Your task to perform on an android device: clear all cookies in the chrome app Image 0: 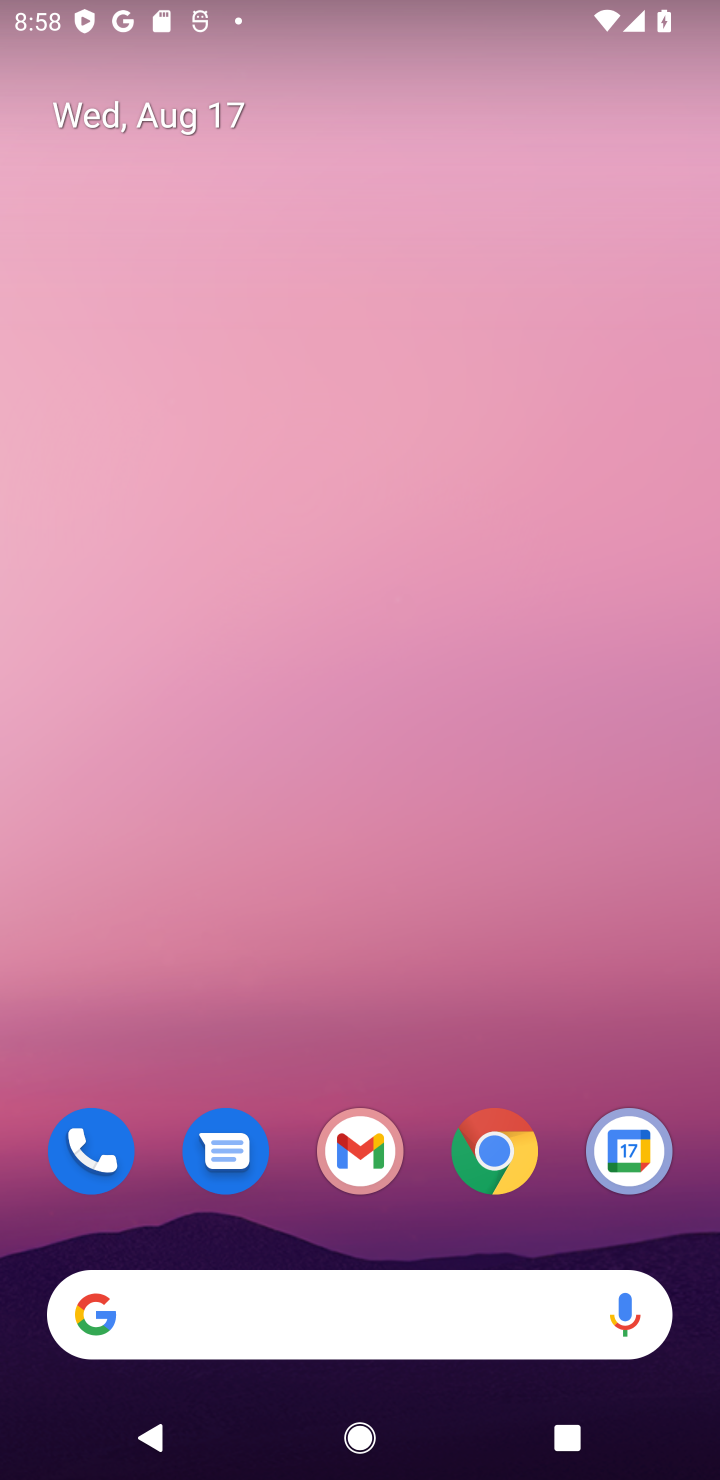
Step 0: click (498, 1152)
Your task to perform on an android device: clear all cookies in the chrome app Image 1: 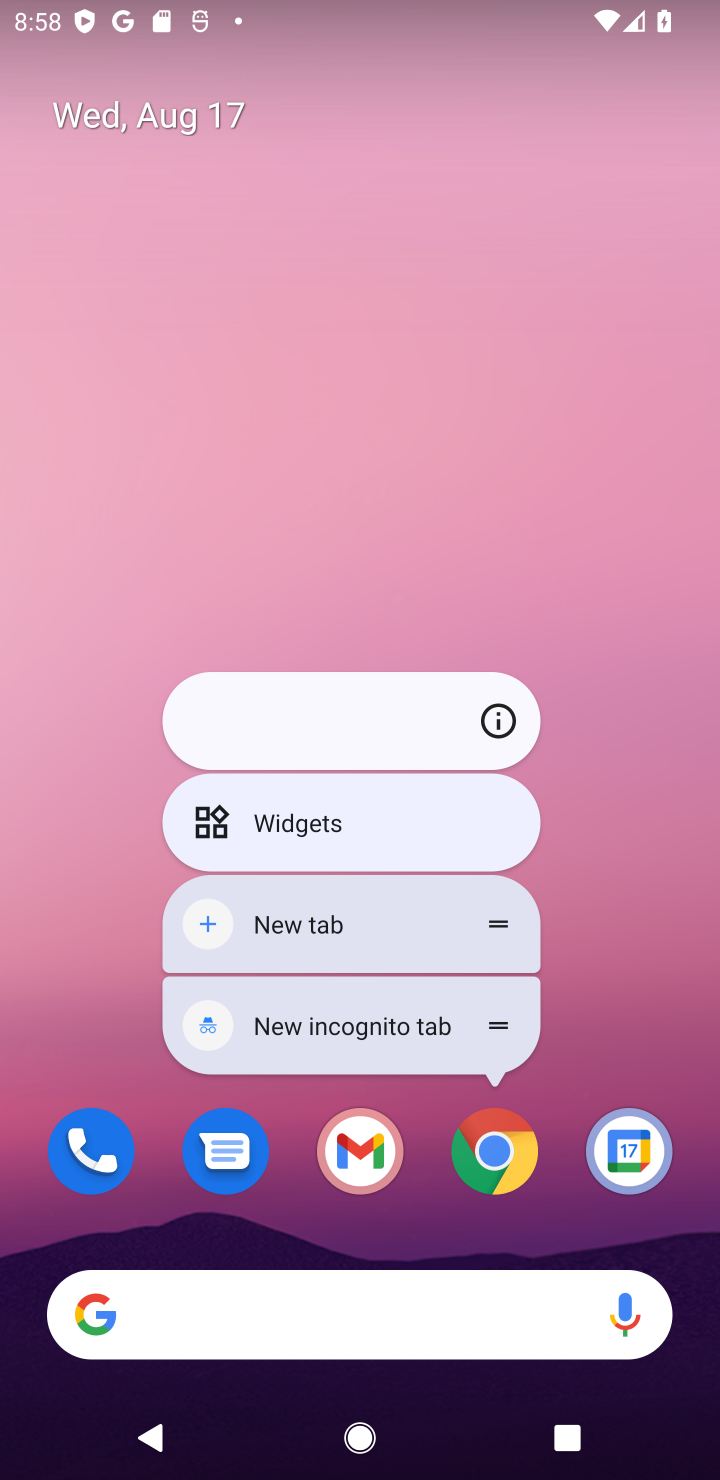
Step 1: click (493, 1161)
Your task to perform on an android device: clear all cookies in the chrome app Image 2: 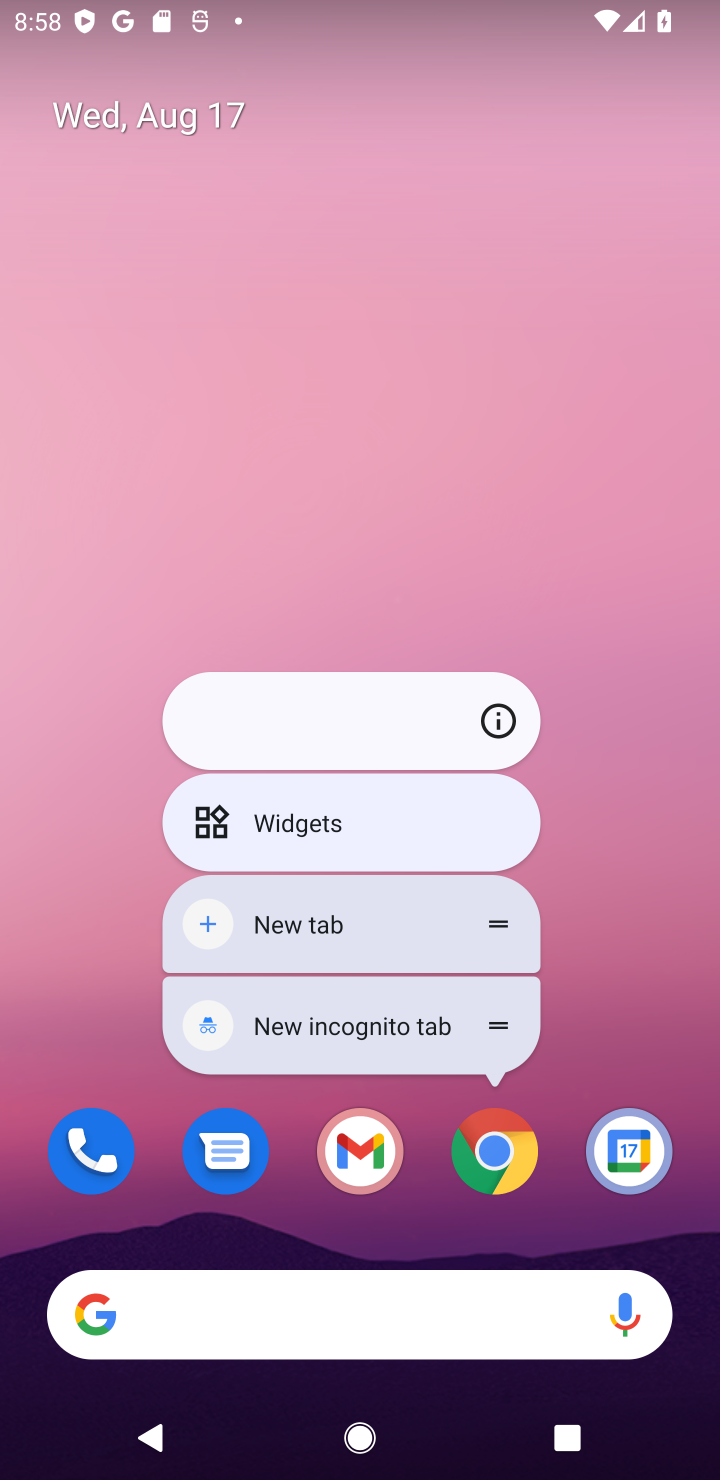
Step 2: click (494, 1161)
Your task to perform on an android device: clear all cookies in the chrome app Image 3: 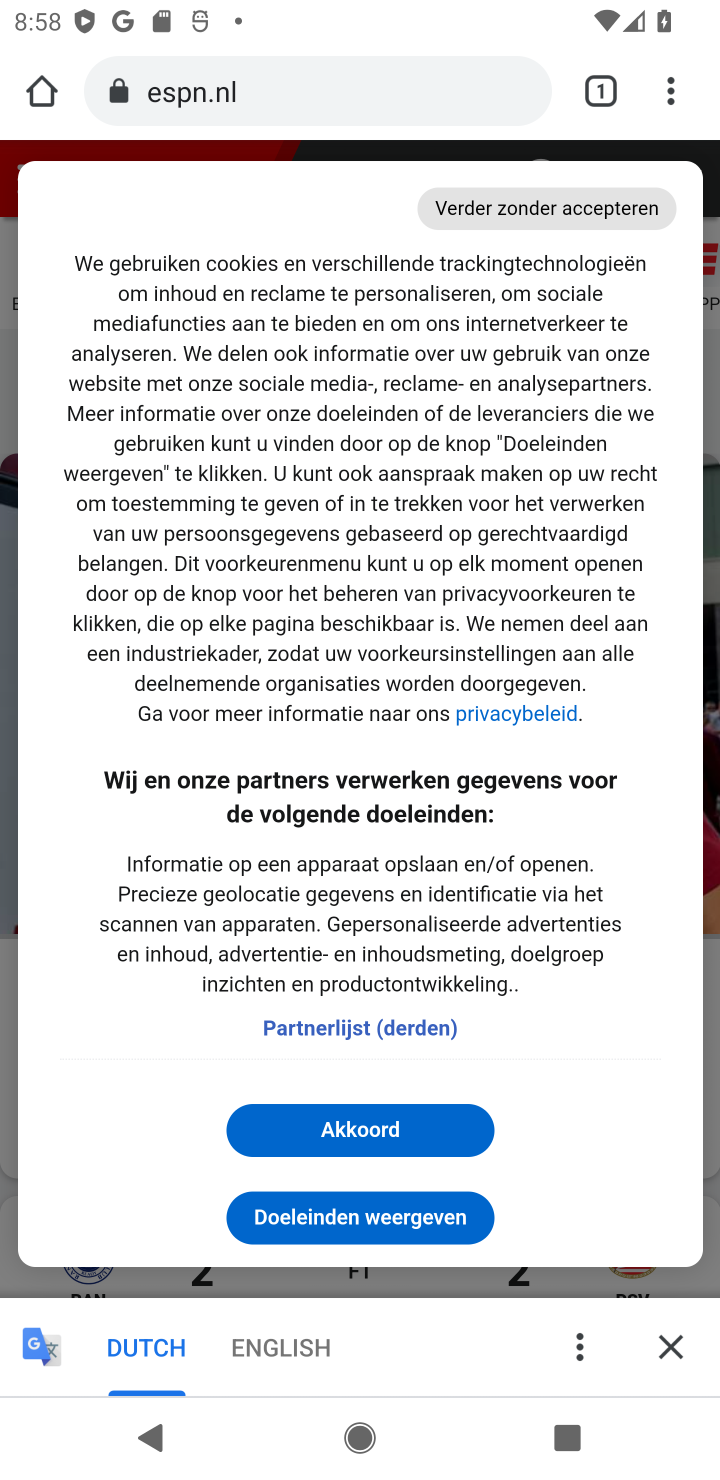
Step 3: click (675, 90)
Your task to perform on an android device: clear all cookies in the chrome app Image 4: 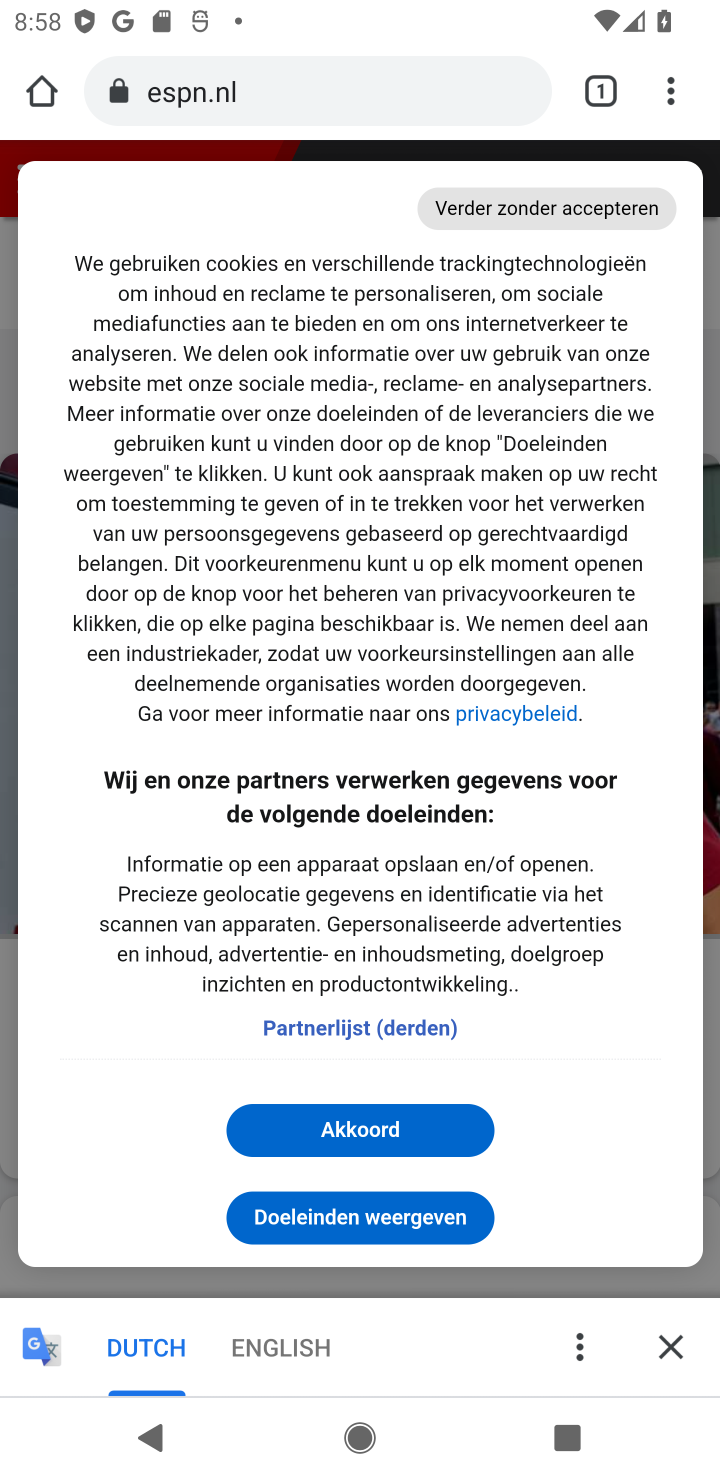
Step 4: task complete